Your task to perform on an android device: toggle javascript in the chrome app Image 0: 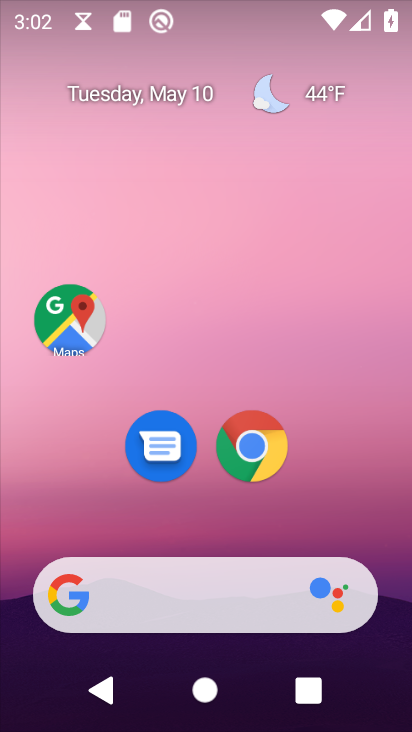
Step 0: drag from (347, 495) to (320, 91)
Your task to perform on an android device: toggle javascript in the chrome app Image 1: 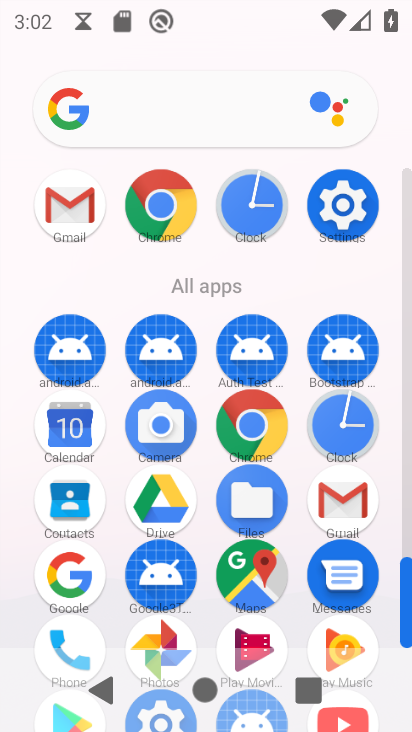
Step 1: click (168, 206)
Your task to perform on an android device: toggle javascript in the chrome app Image 2: 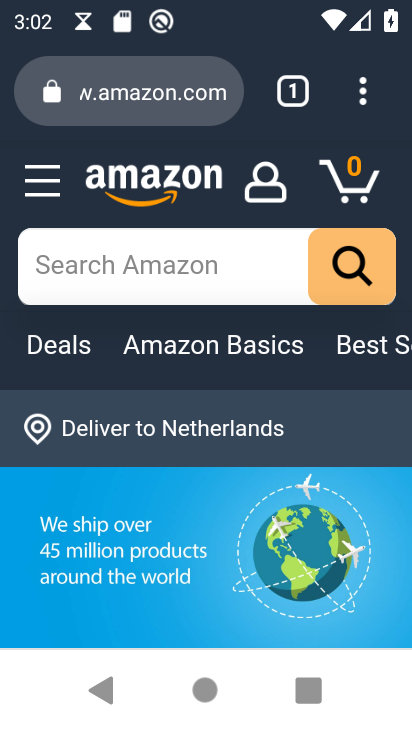
Step 2: drag from (360, 94) to (130, 471)
Your task to perform on an android device: toggle javascript in the chrome app Image 3: 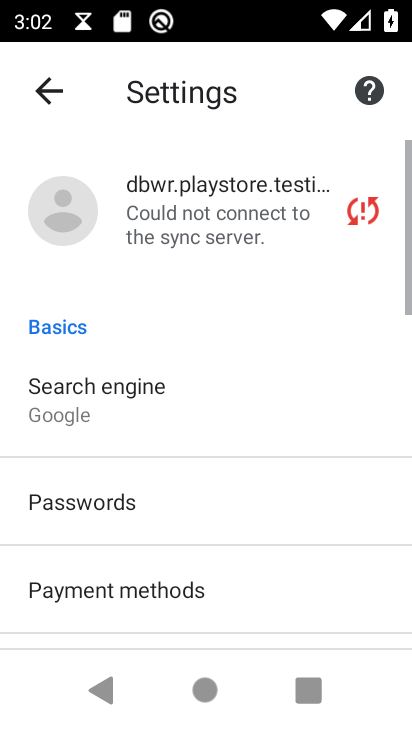
Step 3: drag from (150, 510) to (99, 174)
Your task to perform on an android device: toggle javascript in the chrome app Image 4: 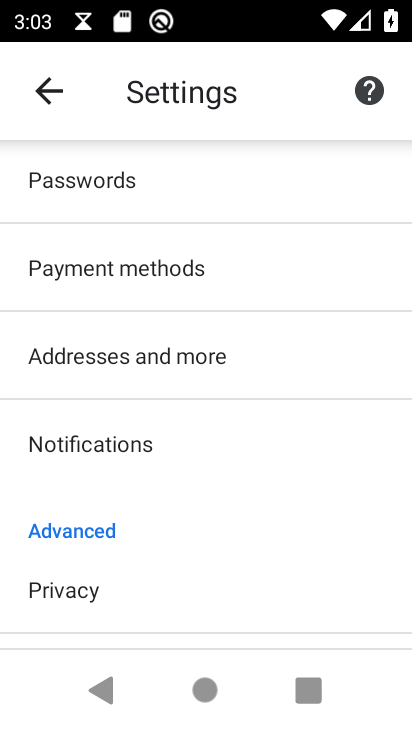
Step 4: drag from (153, 549) to (211, 161)
Your task to perform on an android device: toggle javascript in the chrome app Image 5: 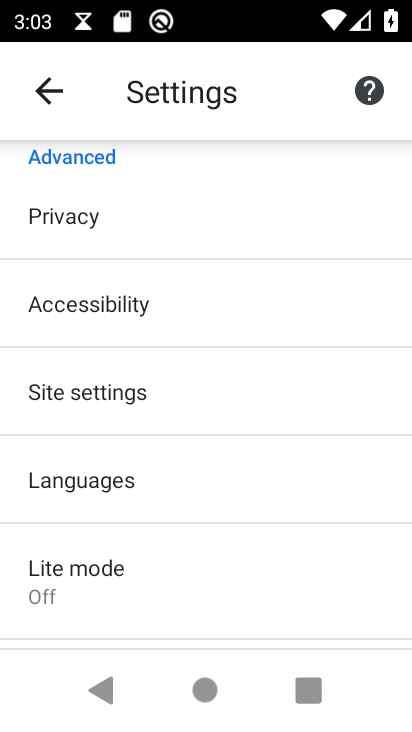
Step 5: click (124, 386)
Your task to perform on an android device: toggle javascript in the chrome app Image 6: 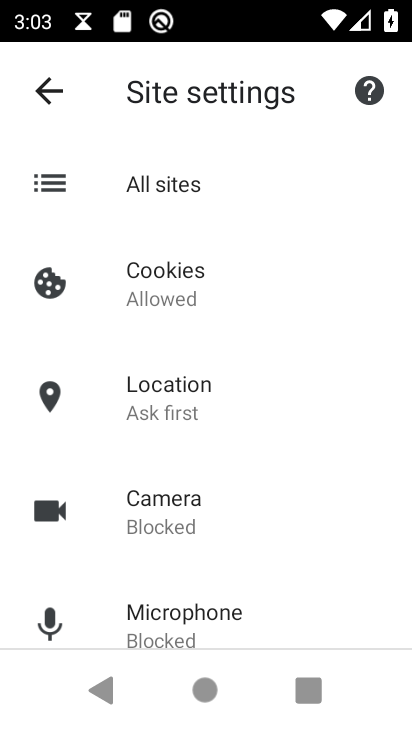
Step 6: drag from (241, 542) to (255, 220)
Your task to perform on an android device: toggle javascript in the chrome app Image 7: 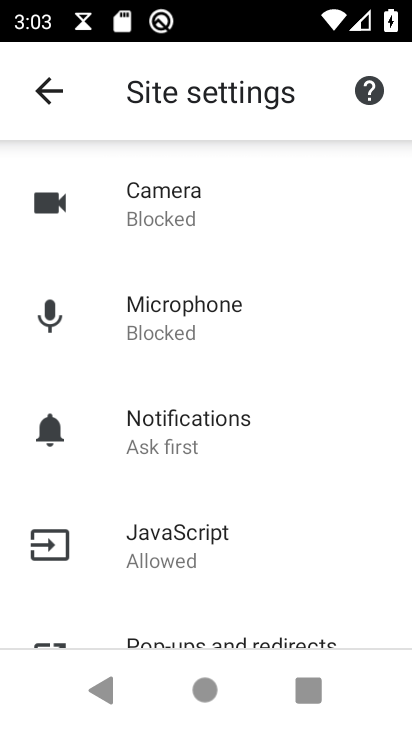
Step 7: click (188, 552)
Your task to perform on an android device: toggle javascript in the chrome app Image 8: 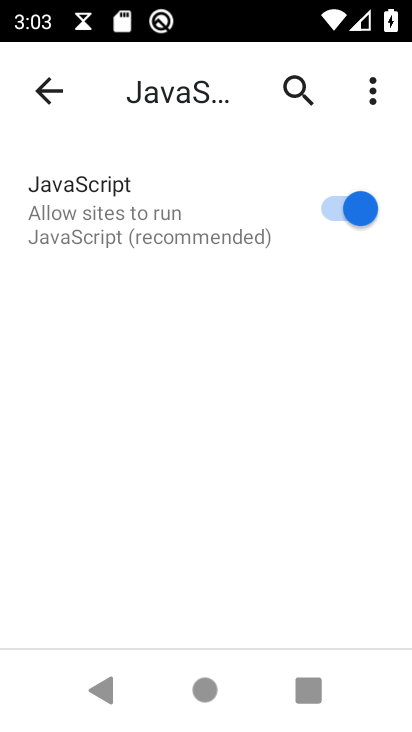
Step 8: click (353, 214)
Your task to perform on an android device: toggle javascript in the chrome app Image 9: 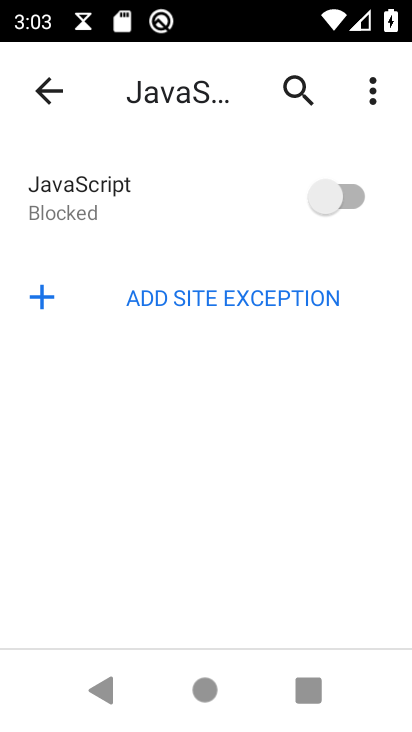
Step 9: task complete